Your task to perform on an android device: install app "YouTube Kids" Image 0: 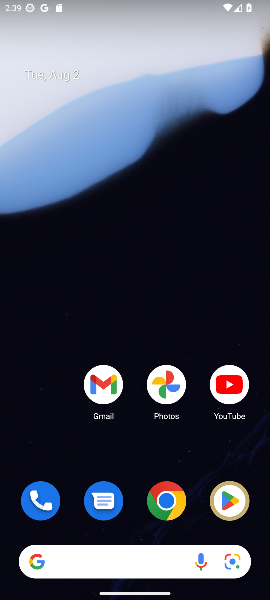
Step 0: click (235, 509)
Your task to perform on an android device: install app "YouTube Kids" Image 1: 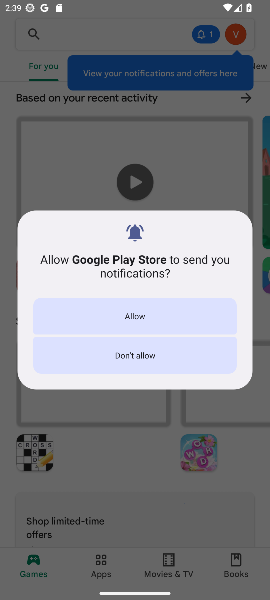
Step 1: click (135, 358)
Your task to perform on an android device: install app "YouTube Kids" Image 2: 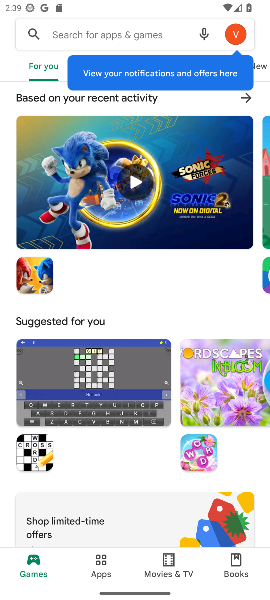
Step 2: click (89, 32)
Your task to perform on an android device: install app "YouTube Kids" Image 3: 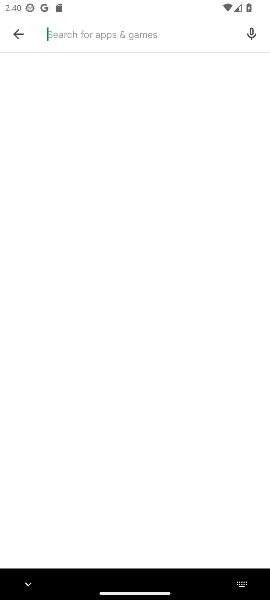
Step 3: type "YouTube Kids"
Your task to perform on an android device: install app "YouTube Kids" Image 4: 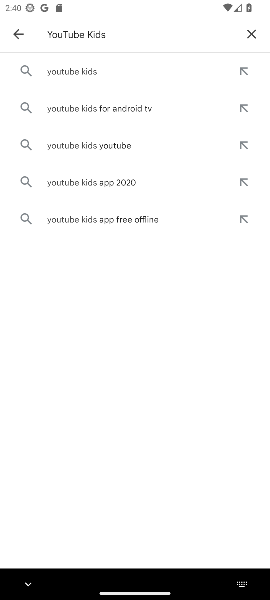
Step 4: click (87, 77)
Your task to perform on an android device: install app "YouTube Kids" Image 5: 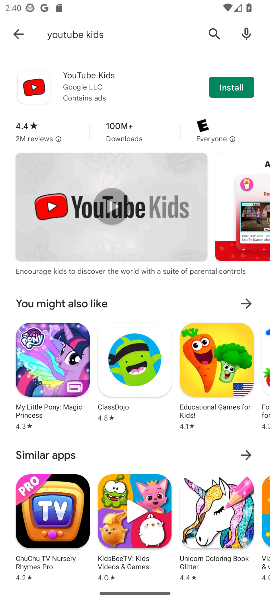
Step 5: click (222, 90)
Your task to perform on an android device: install app "YouTube Kids" Image 6: 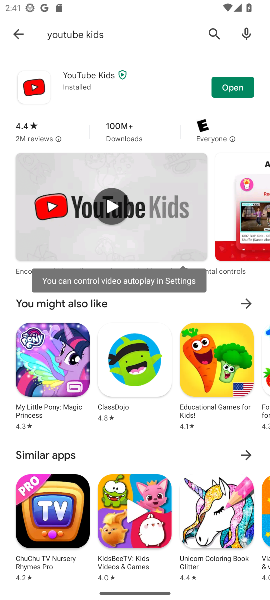
Step 6: task complete